Your task to perform on an android device: Go to Wikipedia Image 0: 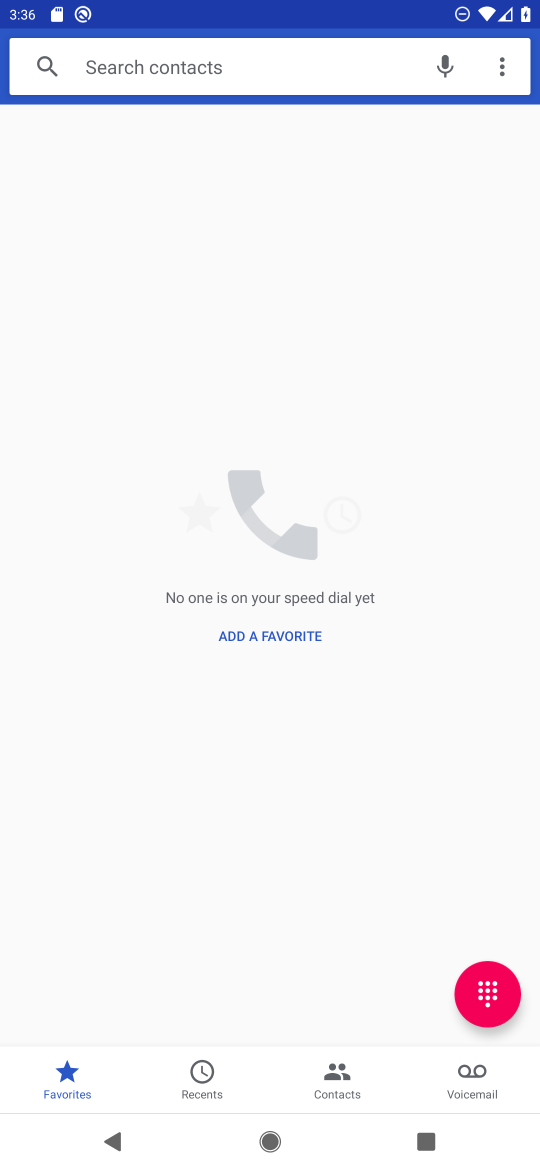
Step 0: press home button
Your task to perform on an android device: Go to Wikipedia Image 1: 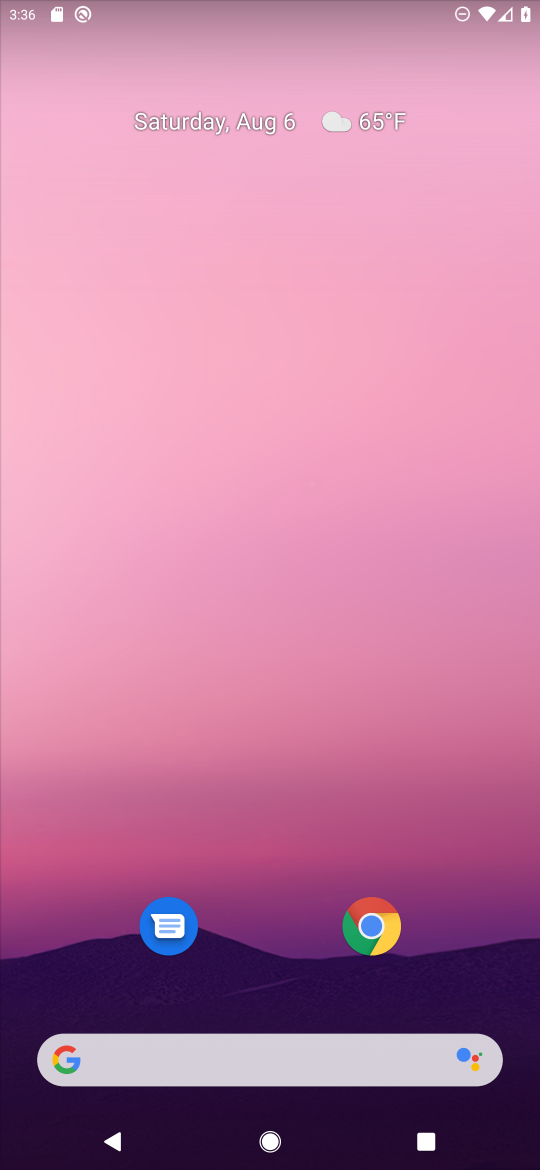
Step 1: click (391, 924)
Your task to perform on an android device: Go to Wikipedia Image 2: 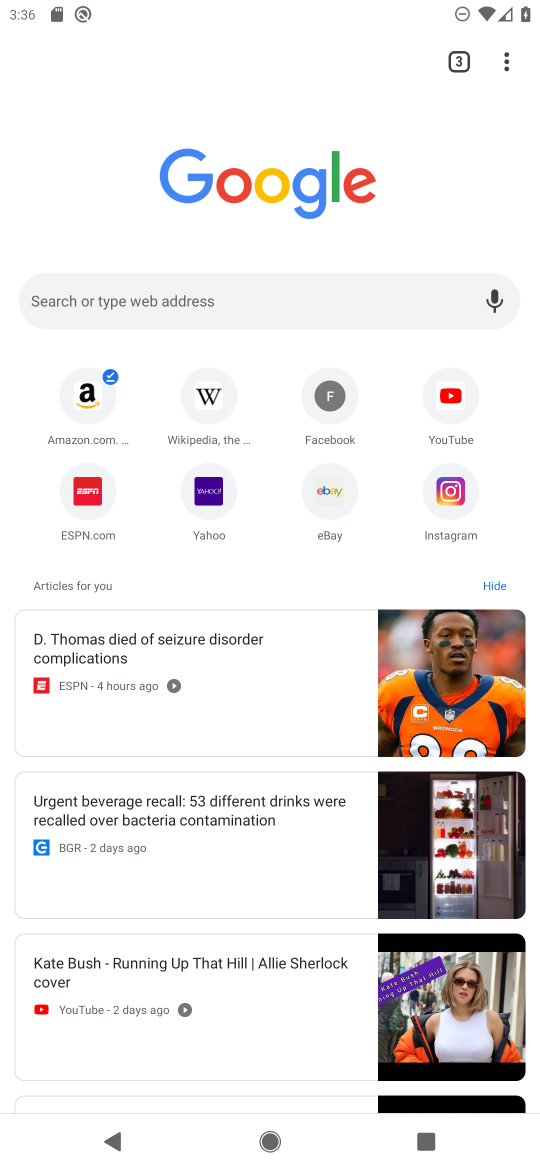
Step 2: click (194, 400)
Your task to perform on an android device: Go to Wikipedia Image 3: 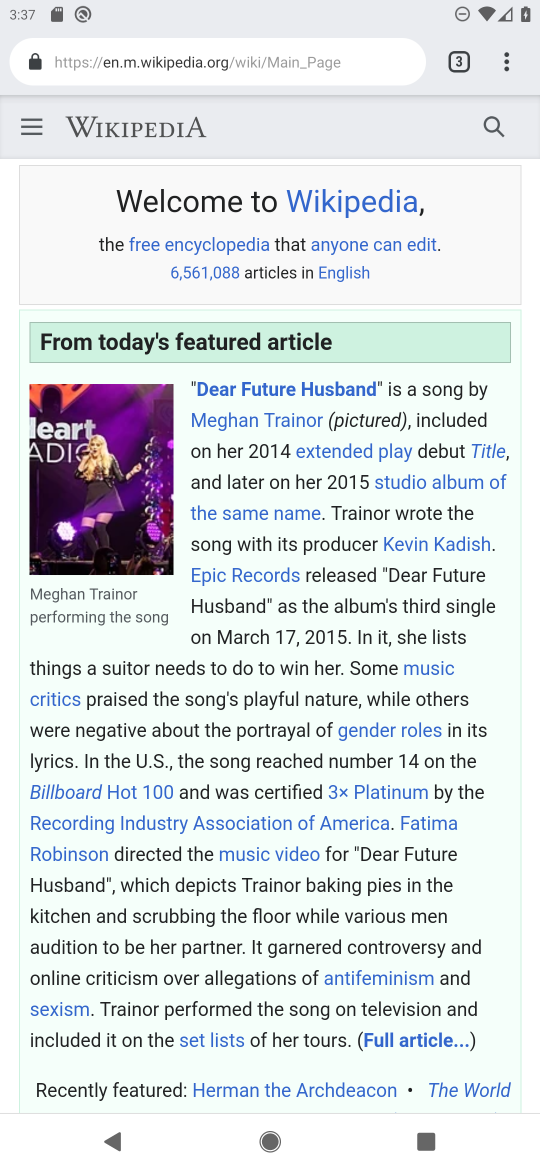
Step 3: task complete